Your task to perform on an android device: Open Maps and search for coffee Image 0: 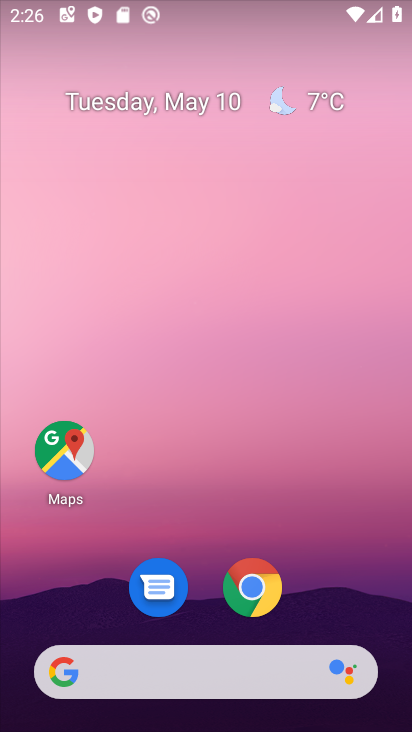
Step 0: click (70, 447)
Your task to perform on an android device: Open Maps and search for coffee Image 1: 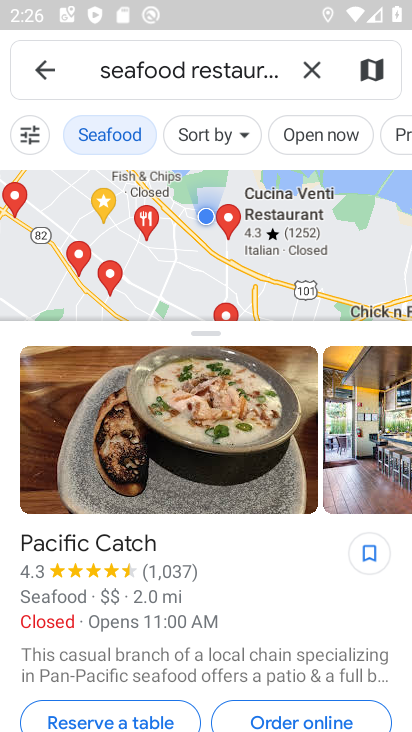
Step 1: click (277, 71)
Your task to perform on an android device: Open Maps and search for coffee Image 2: 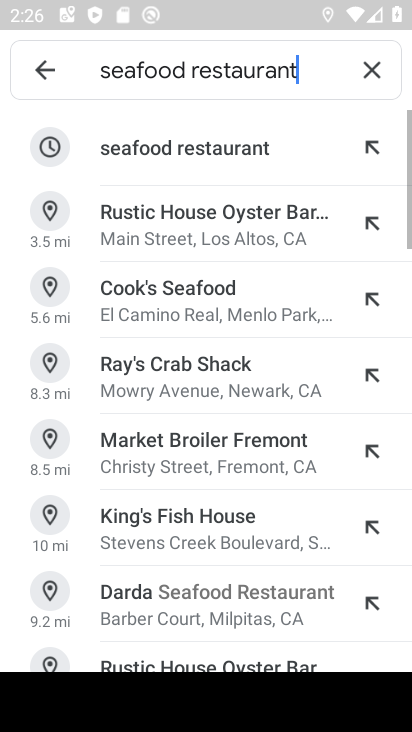
Step 2: click (360, 62)
Your task to perform on an android device: Open Maps and search for coffee Image 3: 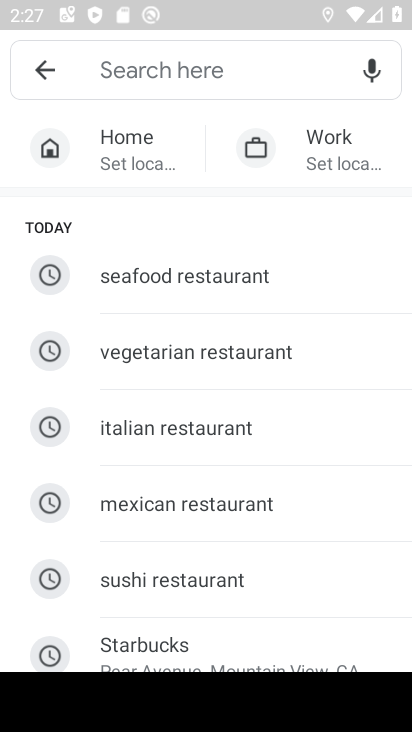
Step 3: type "coffee"
Your task to perform on an android device: Open Maps and search for coffee Image 4: 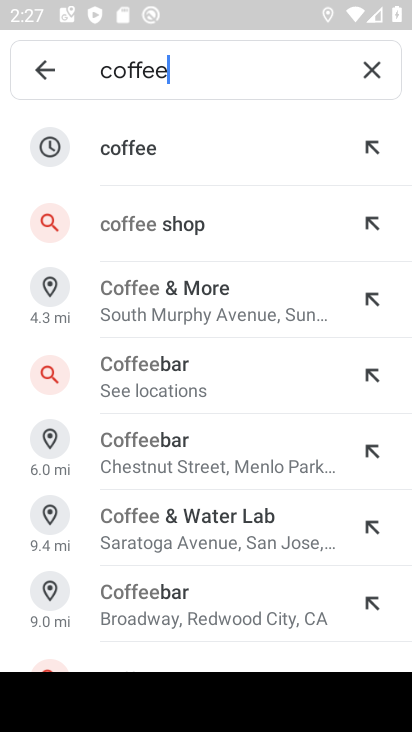
Step 4: click (140, 154)
Your task to perform on an android device: Open Maps and search for coffee Image 5: 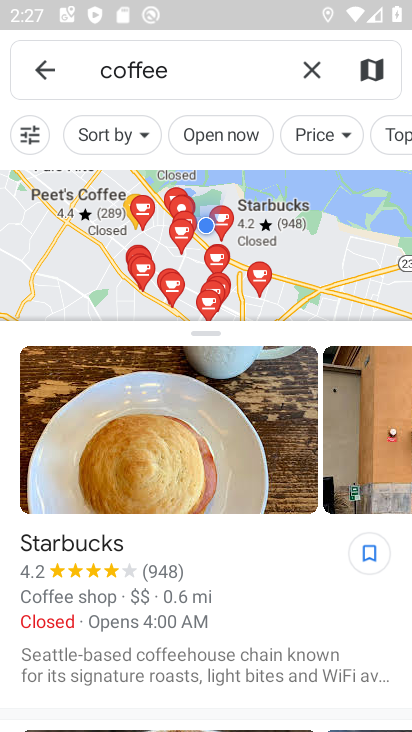
Step 5: task complete